Your task to perform on an android device: turn off sleep mode Image 0: 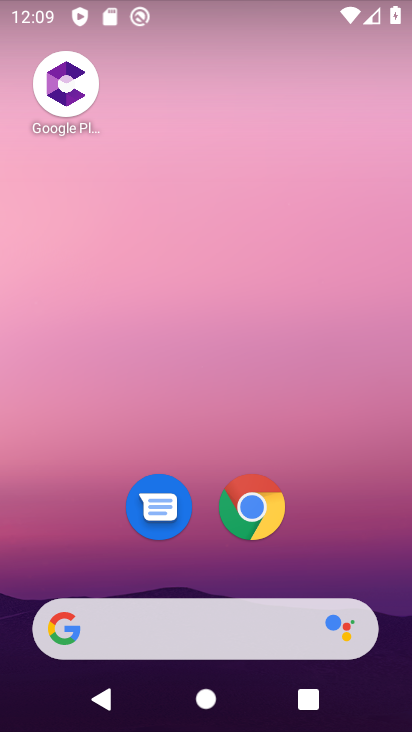
Step 0: click (343, 12)
Your task to perform on an android device: turn off sleep mode Image 1: 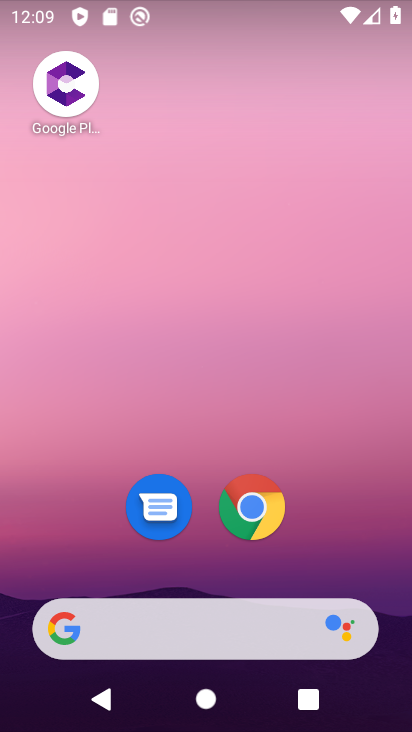
Step 1: drag from (221, 567) to (222, 169)
Your task to perform on an android device: turn off sleep mode Image 2: 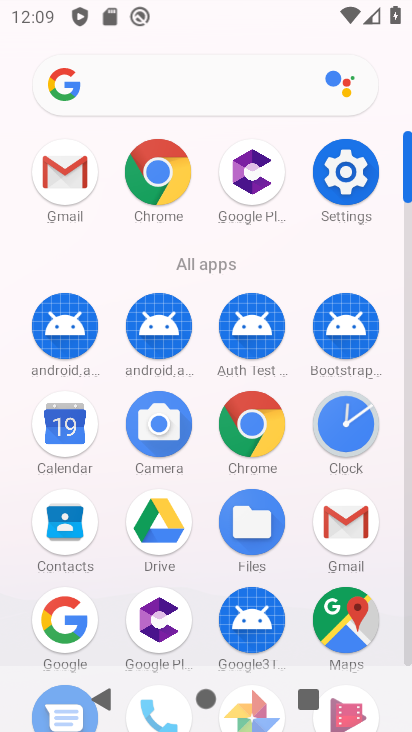
Step 2: click (352, 491)
Your task to perform on an android device: turn off sleep mode Image 3: 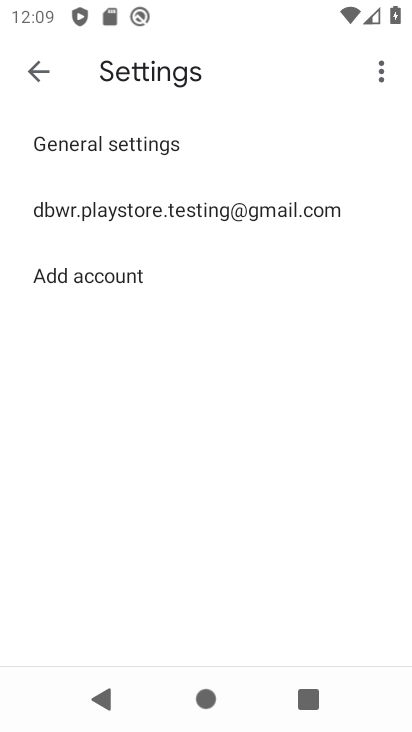
Step 3: press home button
Your task to perform on an android device: turn off sleep mode Image 4: 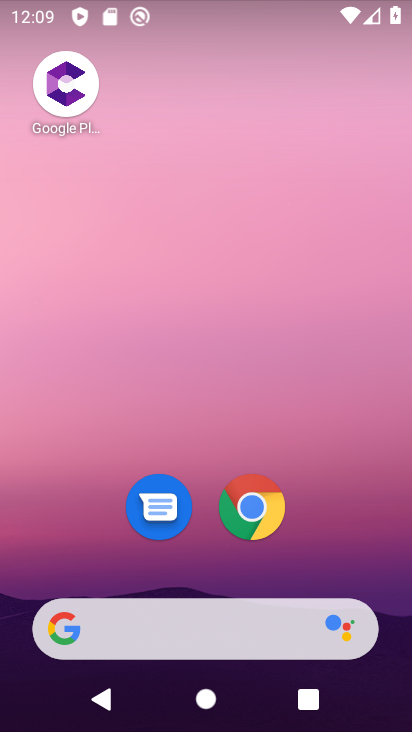
Step 4: drag from (220, 563) to (257, 195)
Your task to perform on an android device: turn off sleep mode Image 5: 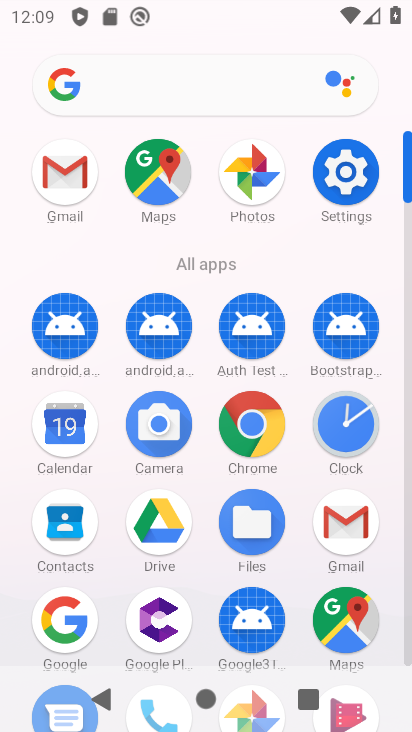
Step 5: click (349, 191)
Your task to perform on an android device: turn off sleep mode Image 6: 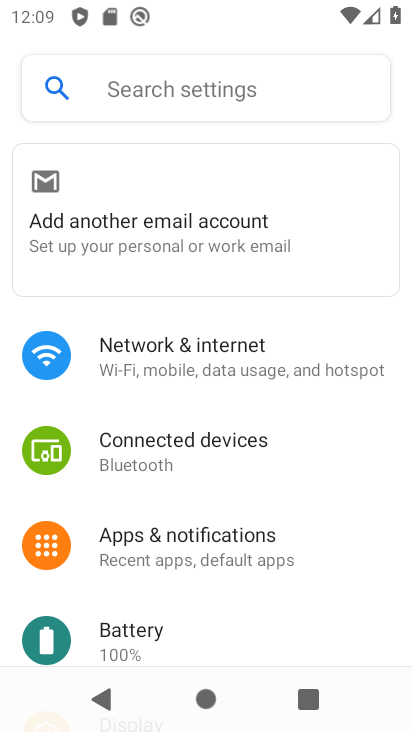
Step 6: click (215, 84)
Your task to perform on an android device: turn off sleep mode Image 7: 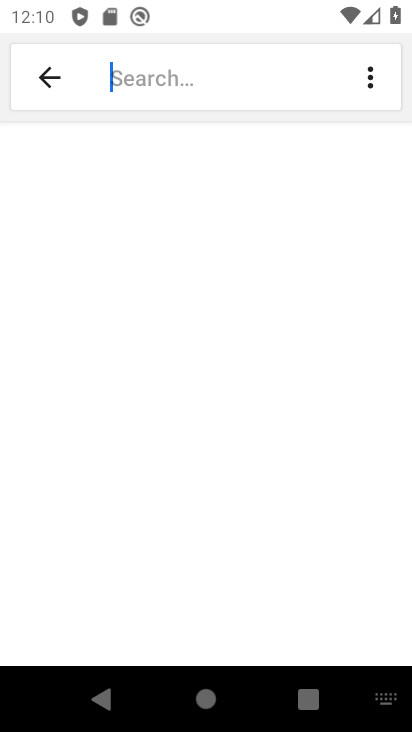
Step 7: type "sleep mode"
Your task to perform on an android device: turn off sleep mode Image 8: 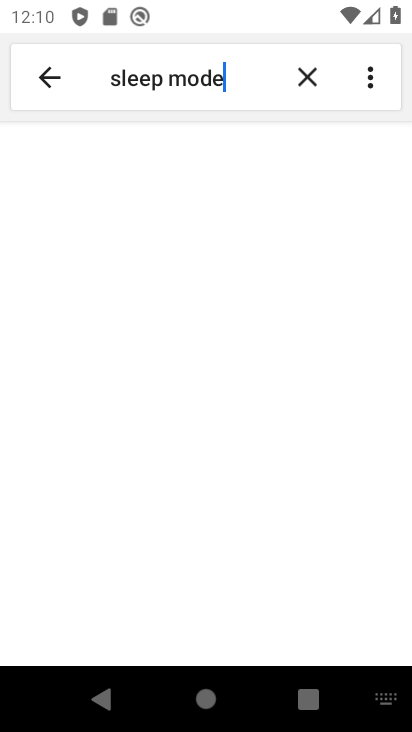
Step 8: click (198, 189)
Your task to perform on an android device: turn off sleep mode Image 9: 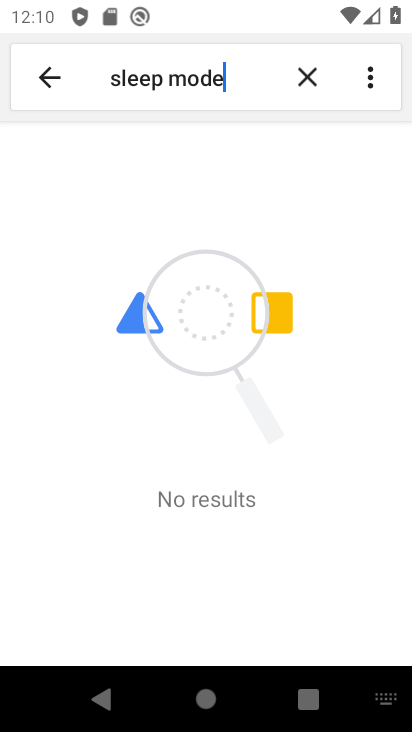
Step 9: task complete